Your task to perform on an android device: create a new album in the google photos Image 0: 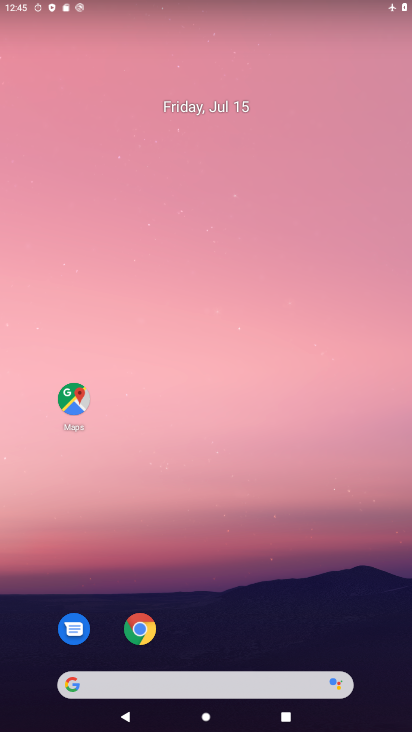
Step 0: drag from (213, 600) to (217, 193)
Your task to perform on an android device: create a new album in the google photos Image 1: 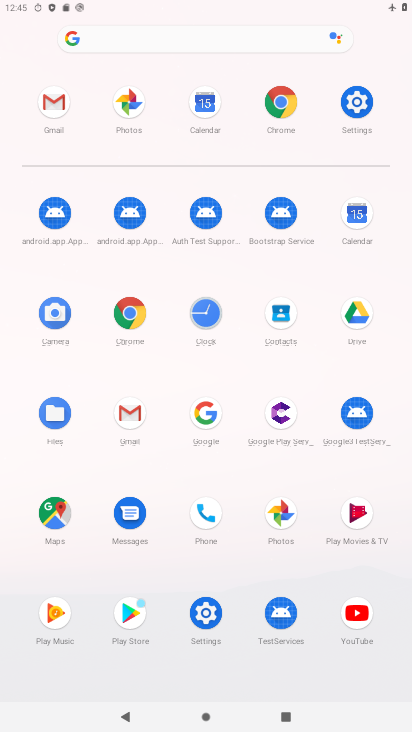
Step 1: click (276, 520)
Your task to perform on an android device: create a new album in the google photos Image 2: 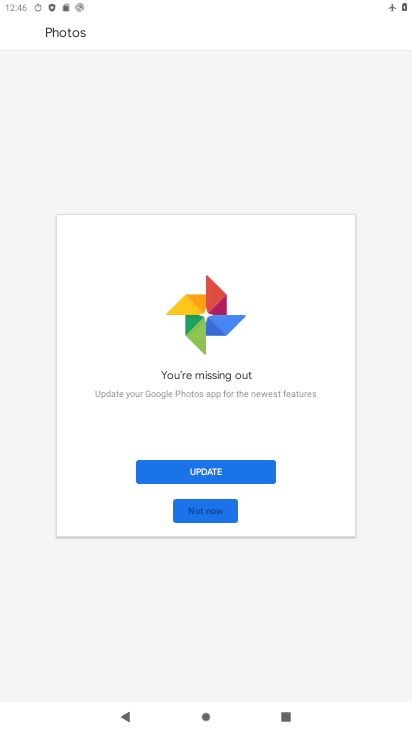
Step 2: click (210, 509)
Your task to perform on an android device: create a new album in the google photos Image 3: 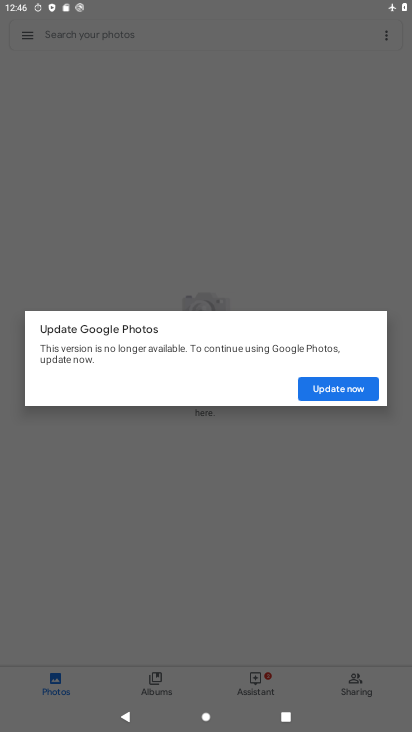
Step 3: click (335, 396)
Your task to perform on an android device: create a new album in the google photos Image 4: 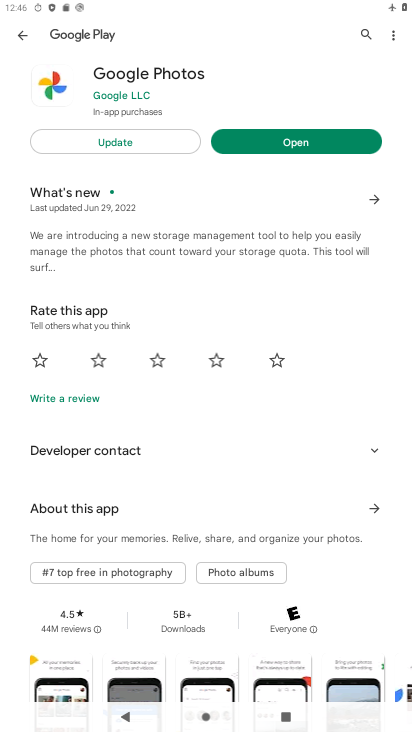
Step 4: click (347, 142)
Your task to perform on an android device: create a new album in the google photos Image 5: 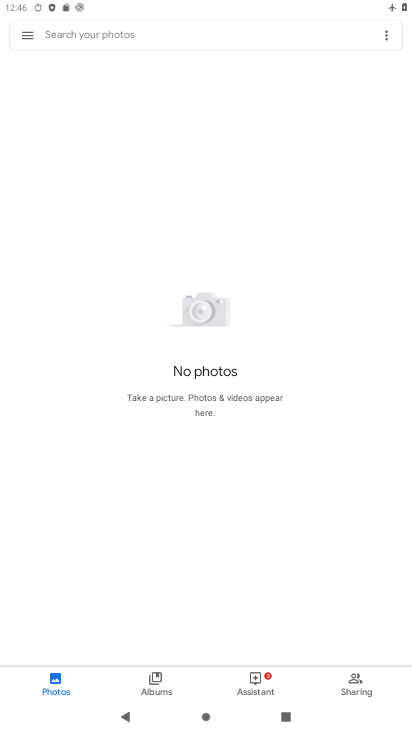
Step 5: click (148, 668)
Your task to perform on an android device: create a new album in the google photos Image 6: 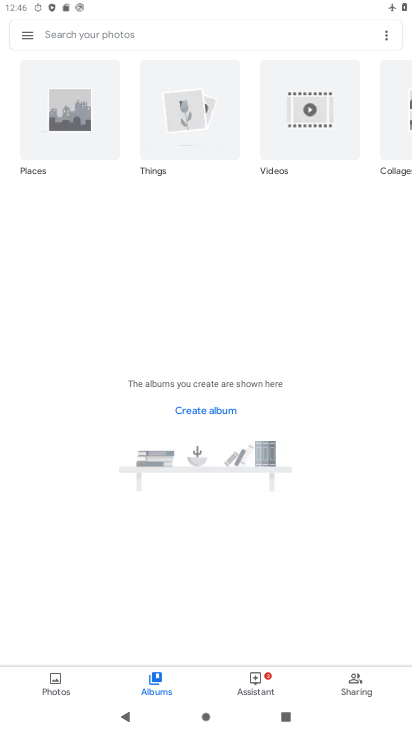
Step 6: click (203, 410)
Your task to perform on an android device: create a new album in the google photos Image 7: 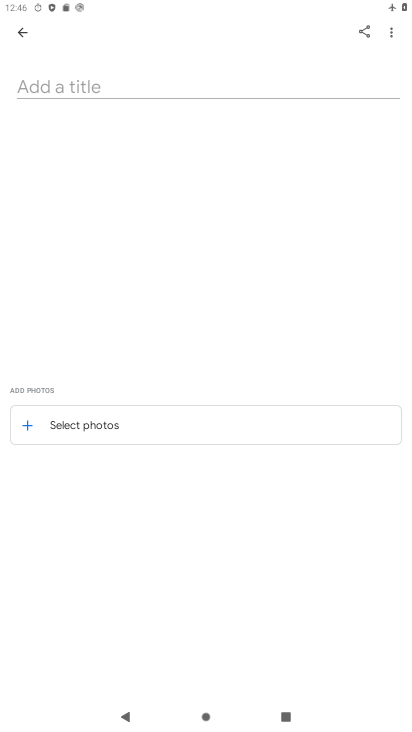
Step 7: task complete